Your task to perform on an android device: create a new album in the google photos Image 0: 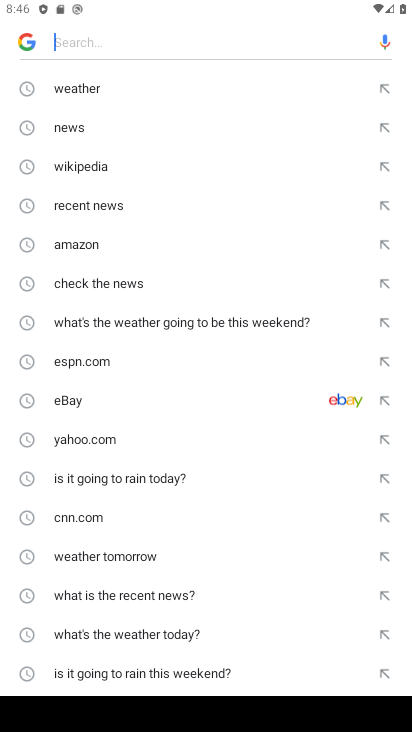
Step 0: press home button
Your task to perform on an android device: create a new album in the google photos Image 1: 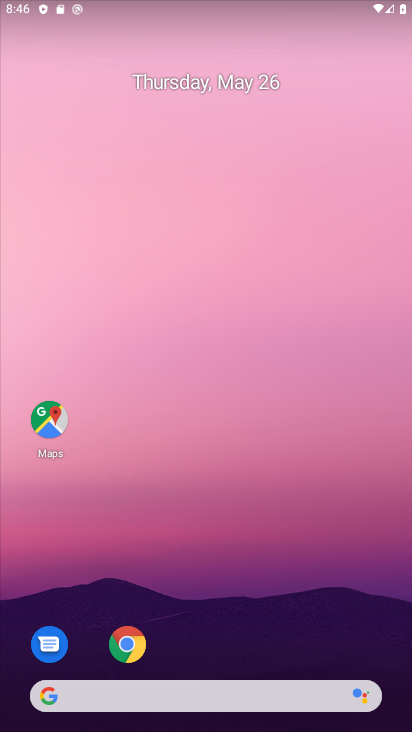
Step 1: drag from (274, 634) to (281, 115)
Your task to perform on an android device: create a new album in the google photos Image 2: 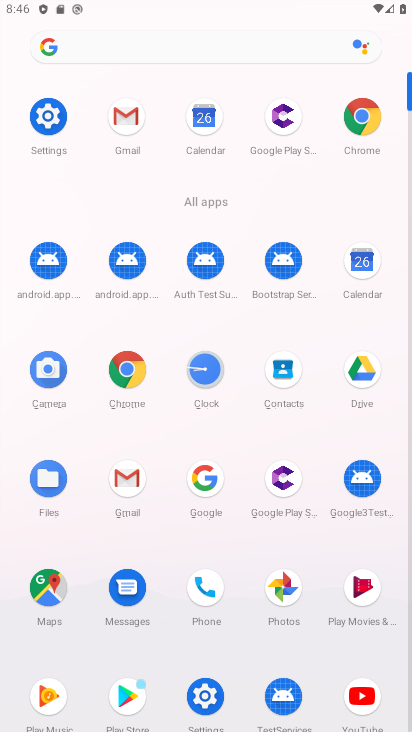
Step 2: click (280, 583)
Your task to perform on an android device: create a new album in the google photos Image 3: 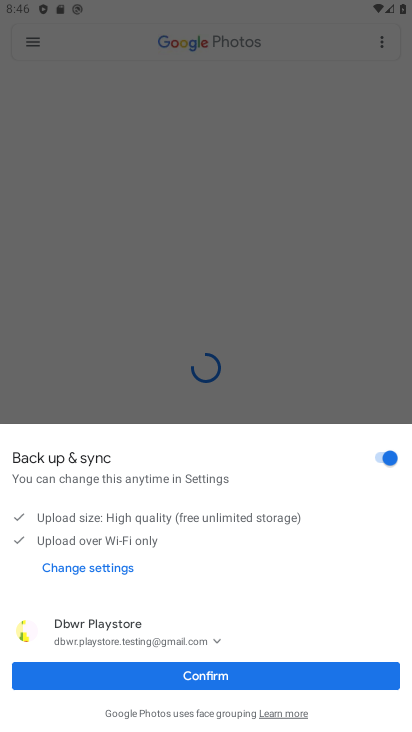
Step 3: click (206, 680)
Your task to perform on an android device: create a new album in the google photos Image 4: 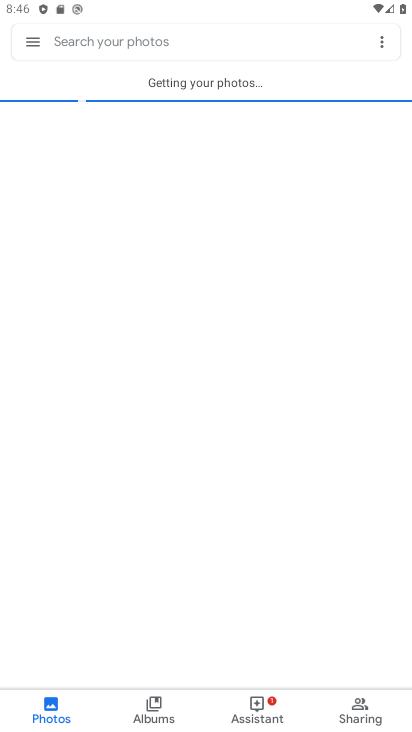
Step 4: drag from (388, 42) to (334, 60)
Your task to perform on an android device: create a new album in the google photos Image 5: 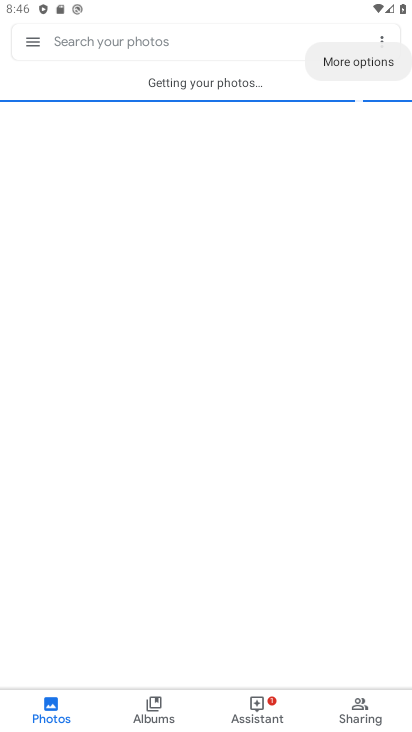
Step 5: click (337, 201)
Your task to perform on an android device: create a new album in the google photos Image 6: 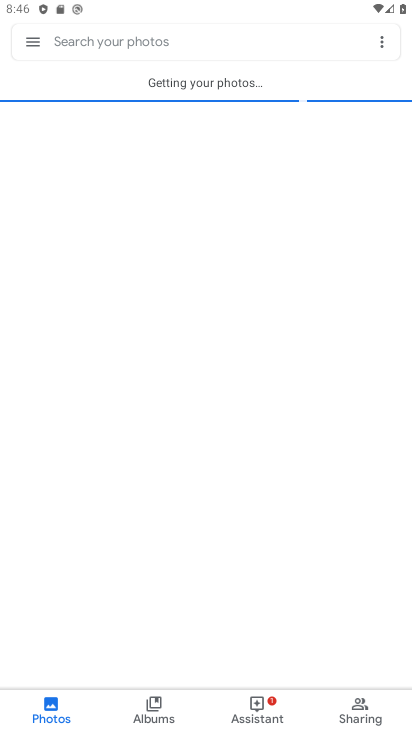
Step 6: click (376, 38)
Your task to perform on an android device: create a new album in the google photos Image 7: 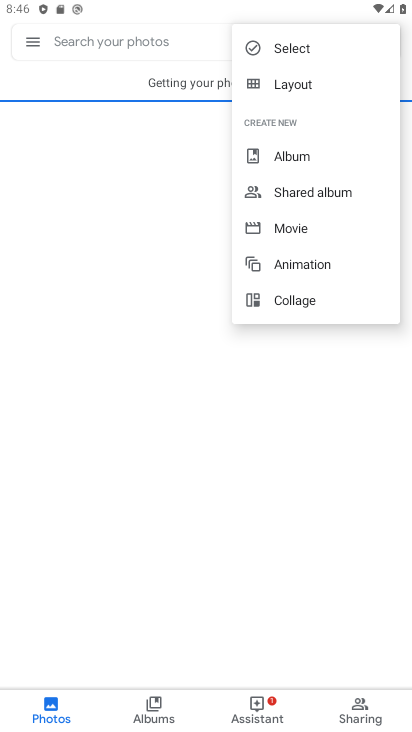
Step 7: click (281, 150)
Your task to perform on an android device: create a new album in the google photos Image 8: 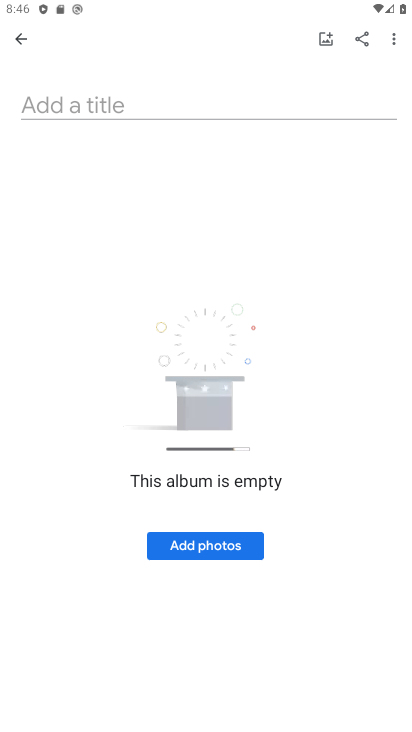
Step 8: click (107, 86)
Your task to perform on an android device: create a new album in the google photos Image 9: 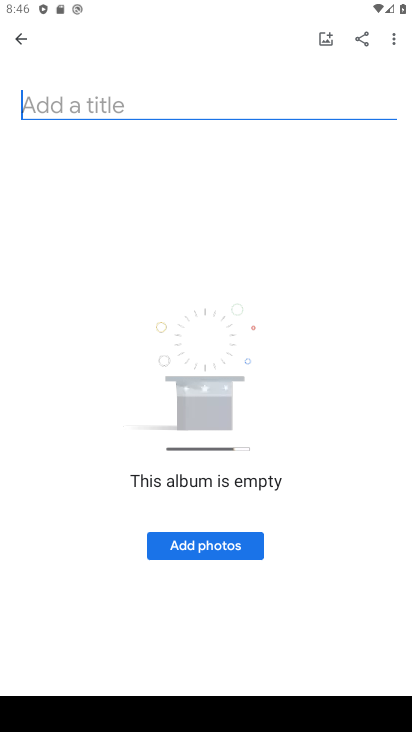
Step 9: type "vdvv"
Your task to perform on an android device: create a new album in the google photos Image 10: 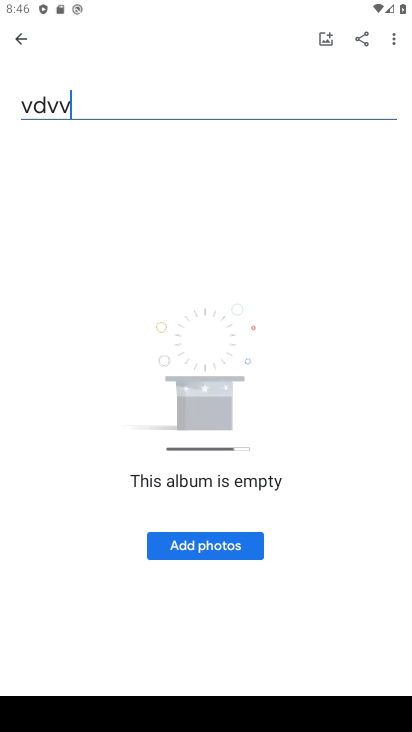
Step 10: click (188, 541)
Your task to perform on an android device: create a new album in the google photos Image 11: 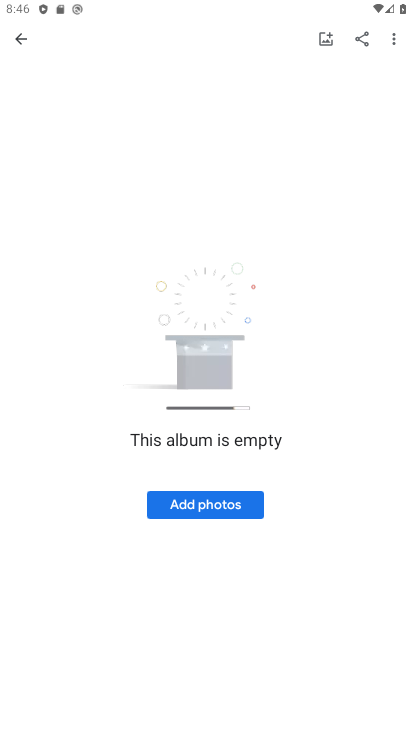
Step 11: click (198, 500)
Your task to perform on an android device: create a new album in the google photos Image 12: 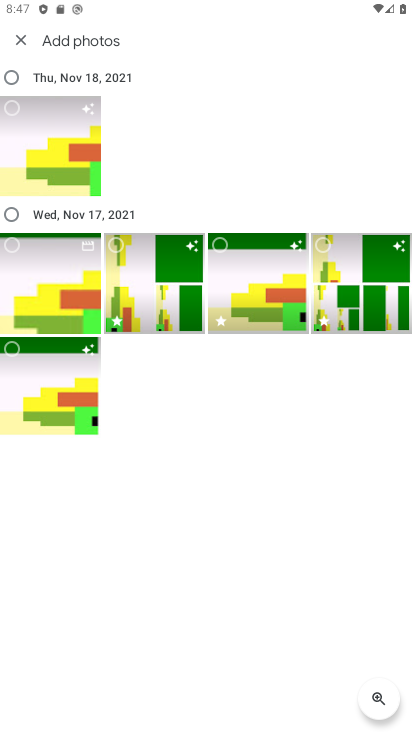
Step 12: click (12, 77)
Your task to perform on an android device: create a new album in the google photos Image 13: 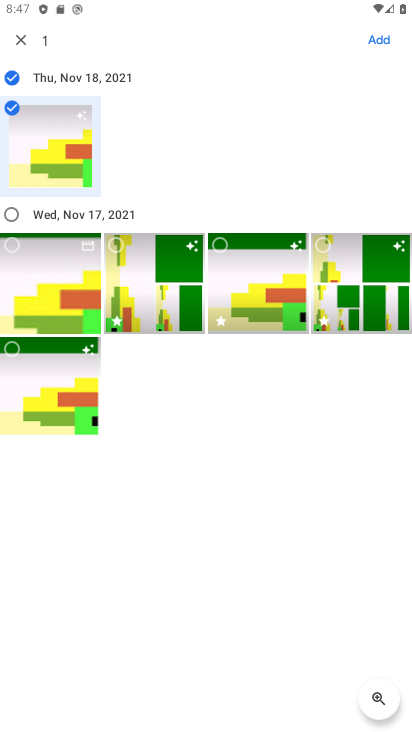
Step 13: click (10, 206)
Your task to perform on an android device: create a new album in the google photos Image 14: 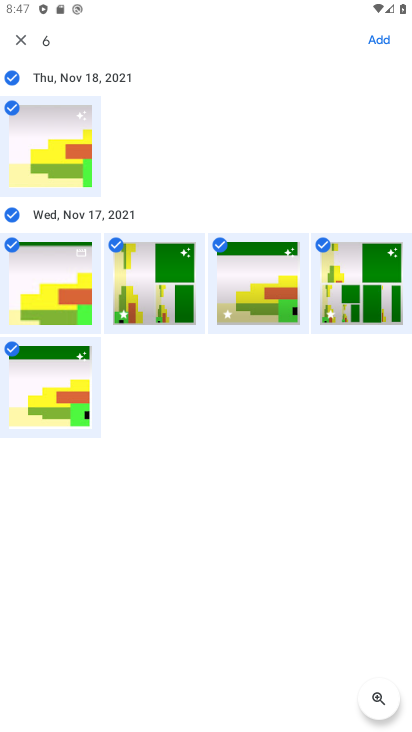
Step 14: click (383, 37)
Your task to perform on an android device: create a new album in the google photos Image 15: 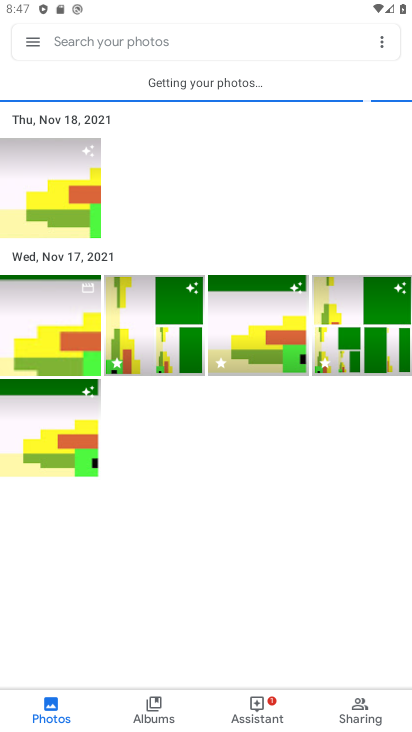
Step 15: task complete